Your task to perform on an android device: Go to Amazon Image 0: 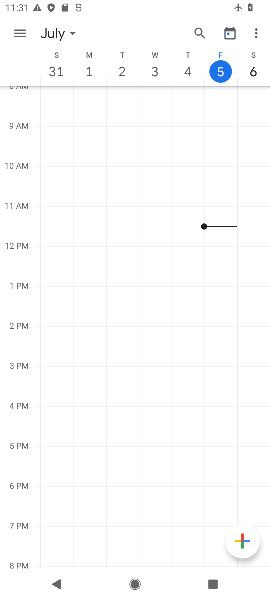
Step 0: press home button
Your task to perform on an android device: Go to Amazon Image 1: 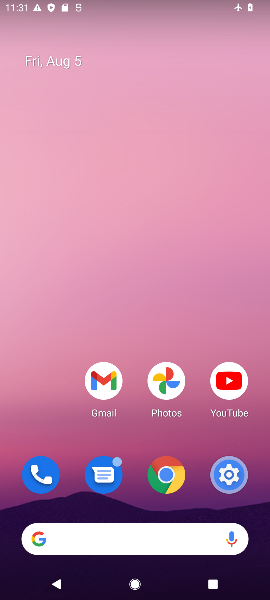
Step 1: click (160, 481)
Your task to perform on an android device: Go to Amazon Image 2: 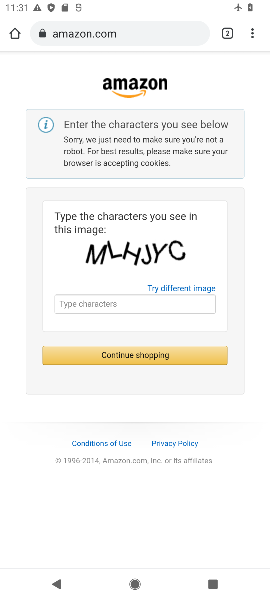
Step 2: click (100, 32)
Your task to perform on an android device: Go to Amazon Image 3: 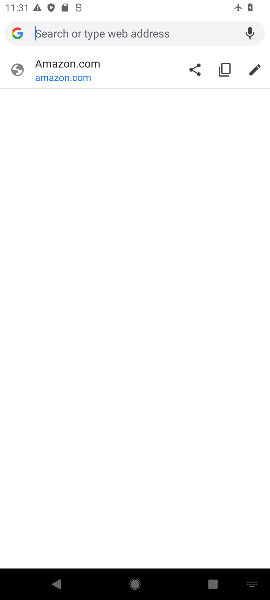
Step 3: click (82, 72)
Your task to perform on an android device: Go to Amazon Image 4: 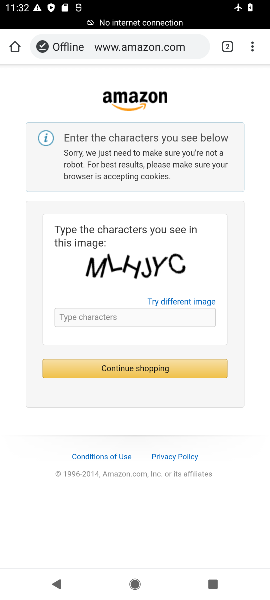
Step 4: task complete